Your task to perform on an android device: turn on airplane mode Image 0: 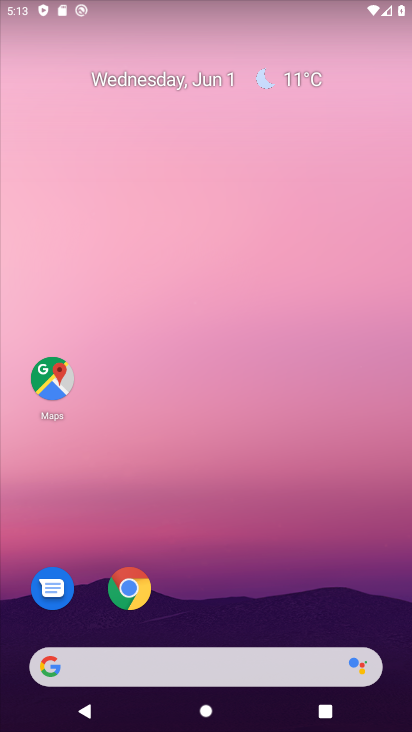
Step 0: drag from (199, 661) to (315, 31)
Your task to perform on an android device: turn on airplane mode Image 1: 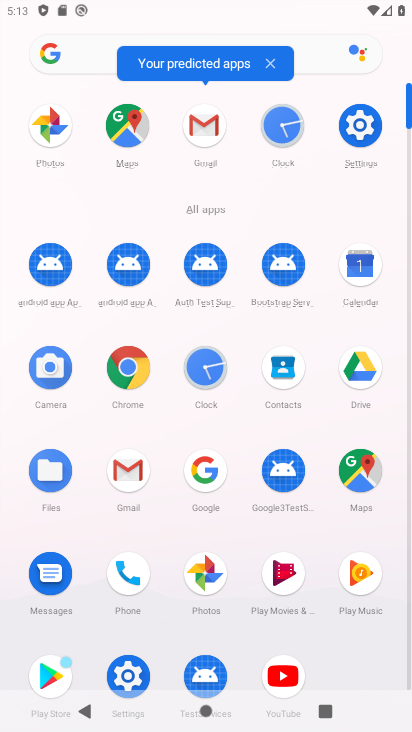
Step 1: drag from (208, 658) to (269, 323)
Your task to perform on an android device: turn on airplane mode Image 2: 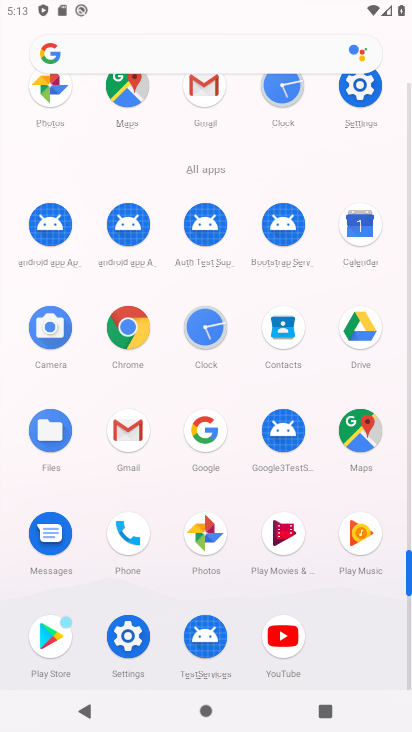
Step 2: click (130, 625)
Your task to perform on an android device: turn on airplane mode Image 3: 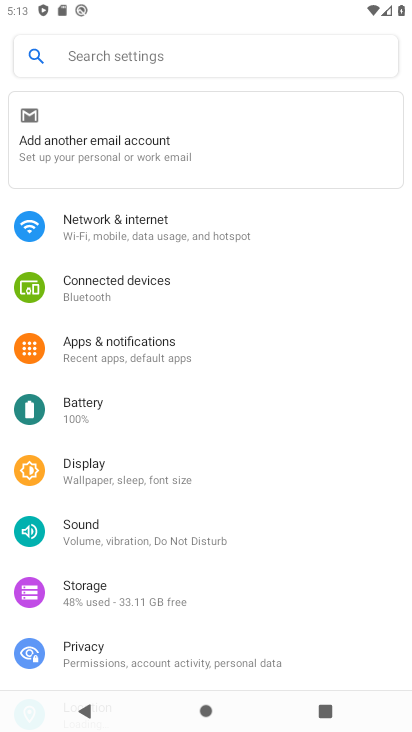
Step 3: click (254, 241)
Your task to perform on an android device: turn on airplane mode Image 4: 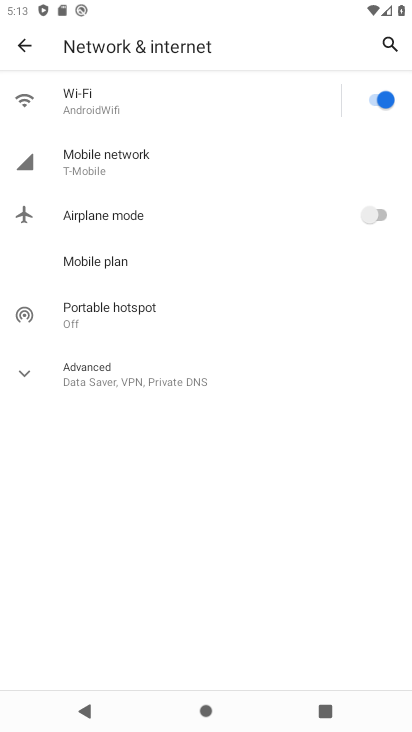
Step 4: click (401, 215)
Your task to perform on an android device: turn on airplane mode Image 5: 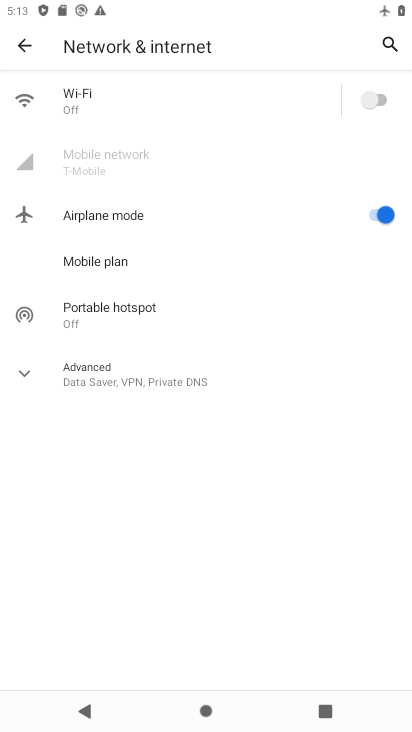
Step 5: task complete